Your task to perform on an android device: Clear all items from cart on walmart. Add logitech g933 to the cart on walmart Image 0: 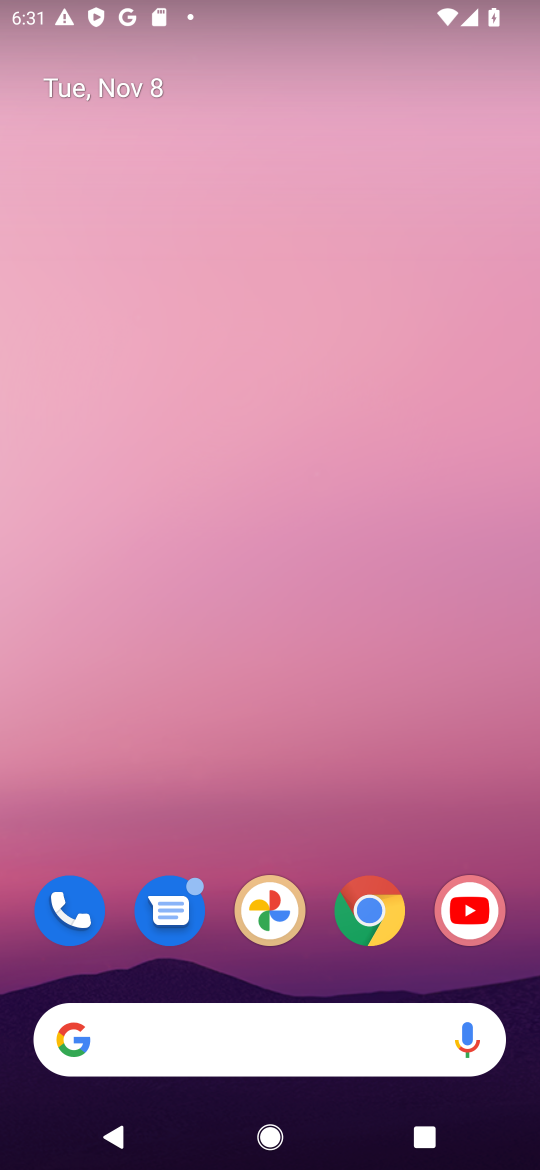
Step 0: click (382, 921)
Your task to perform on an android device: Clear all items from cart on walmart. Add logitech g933 to the cart on walmart Image 1: 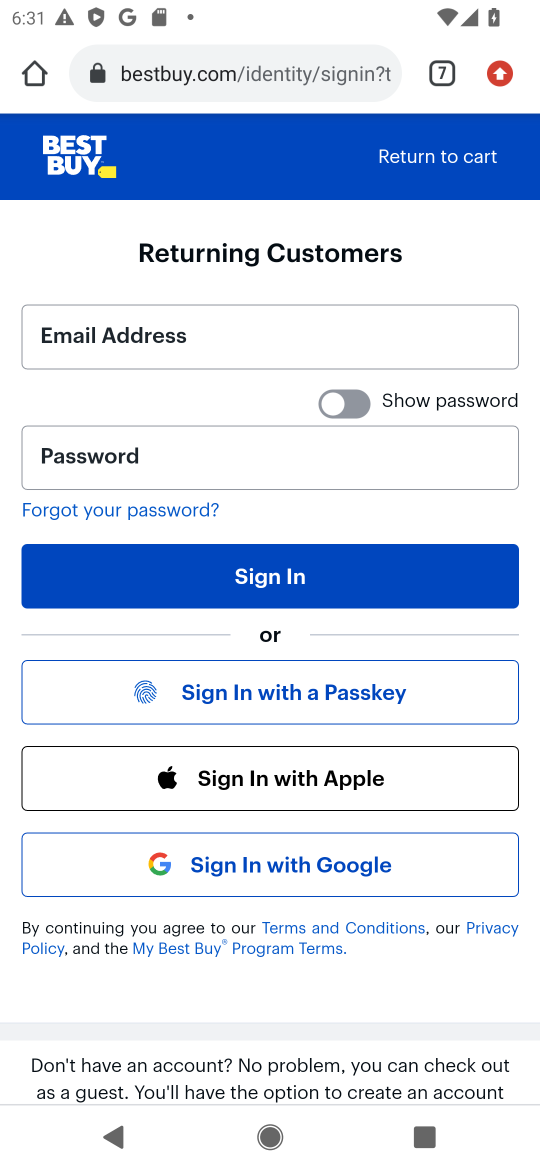
Step 1: click (436, 72)
Your task to perform on an android device: Clear all items from cart on walmart. Add logitech g933 to the cart on walmart Image 2: 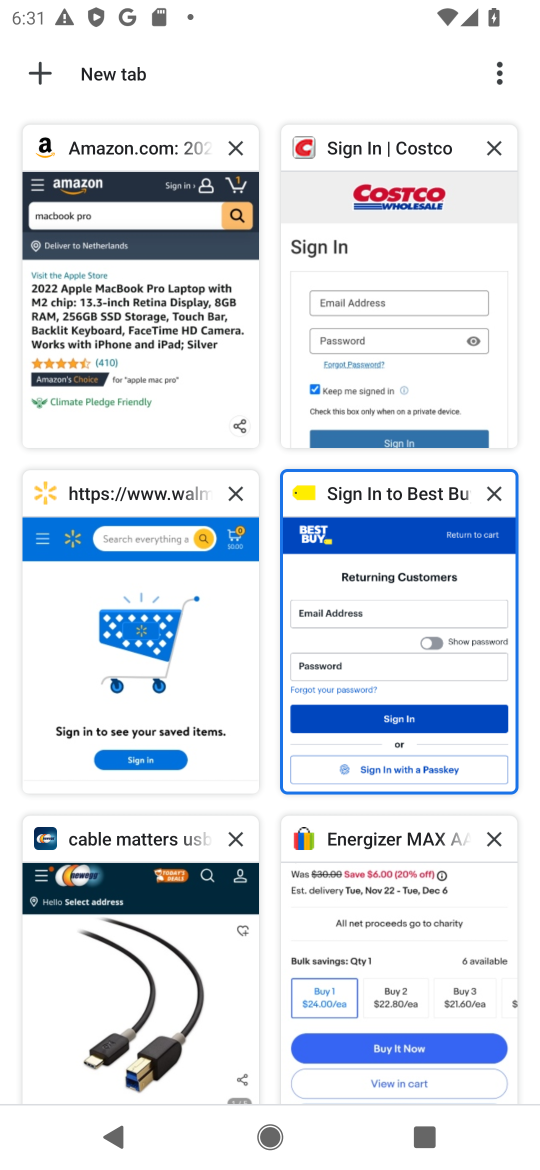
Step 2: click (148, 586)
Your task to perform on an android device: Clear all items from cart on walmart. Add logitech g933 to the cart on walmart Image 3: 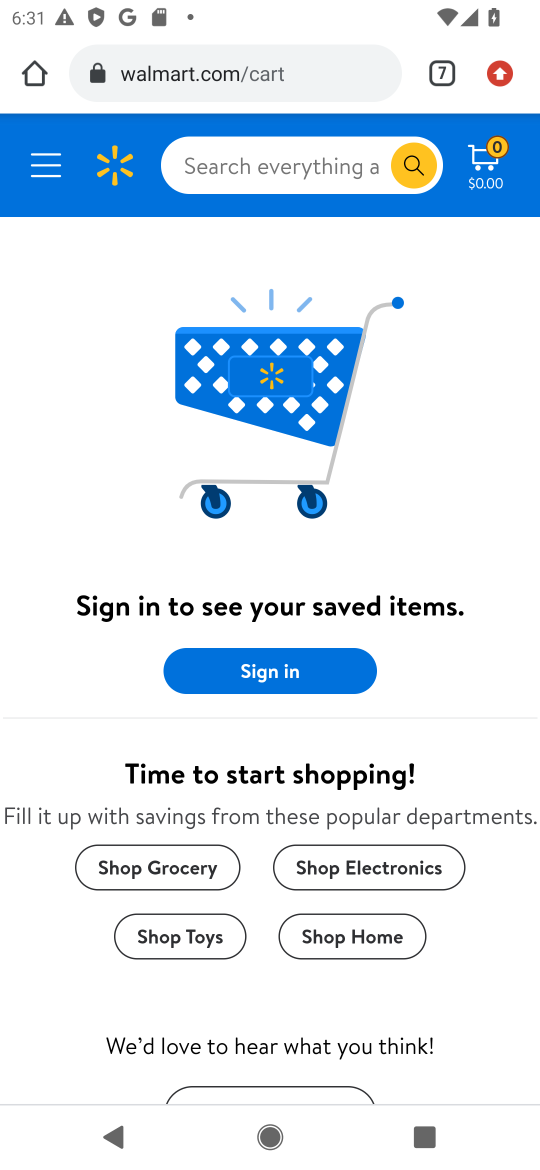
Step 3: click (297, 179)
Your task to perform on an android device: Clear all items from cart on walmart. Add logitech g933 to the cart on walmart Image 4: 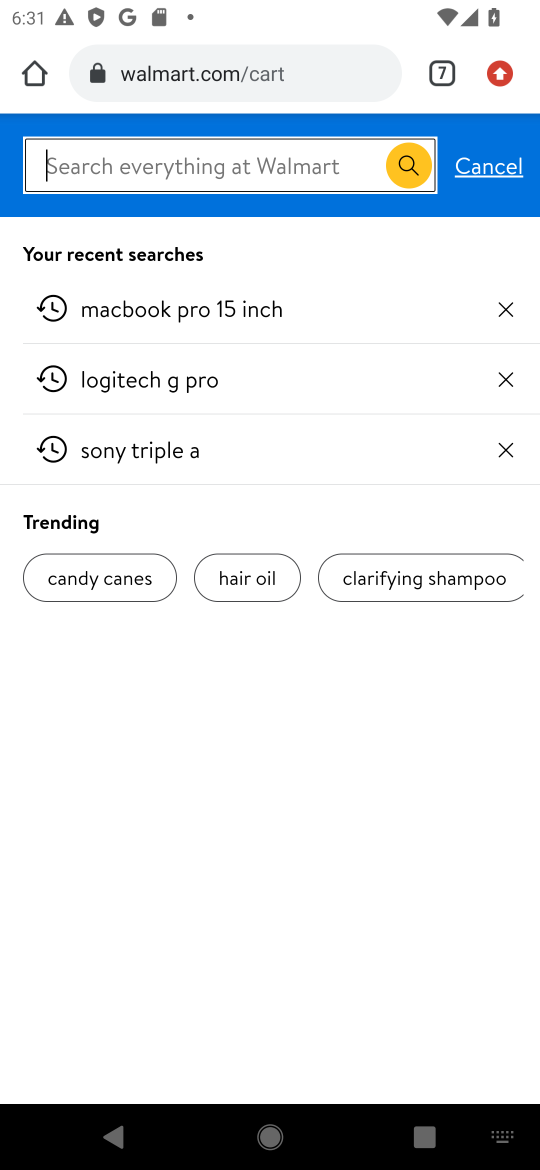
Step 4: type "logitech g933"
Your task to perform on an android device: Clear all items from cart on walmart. Add logitech g933 to the cart on walmart Image 5: 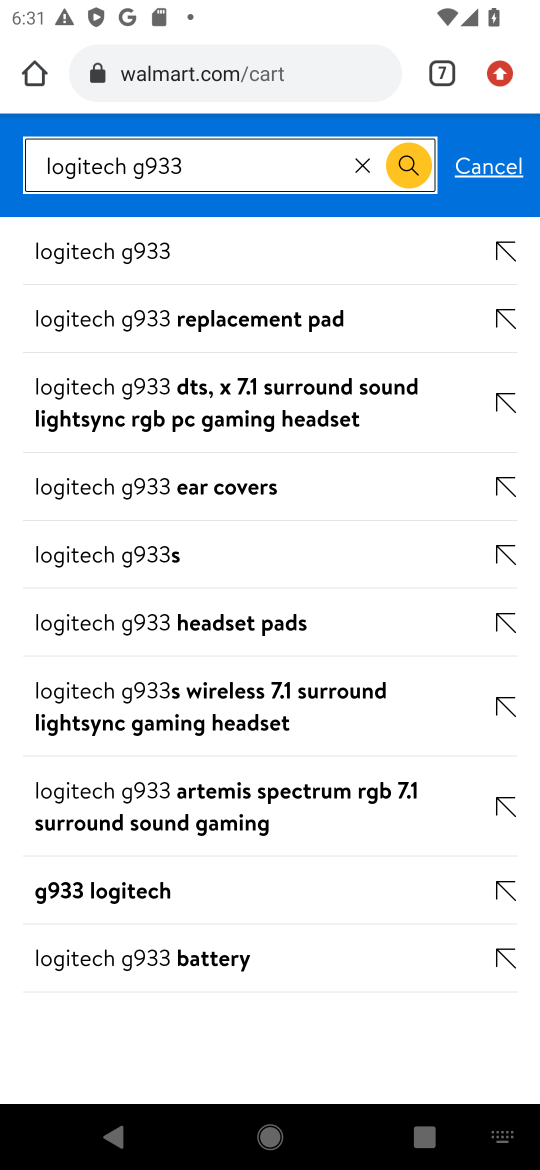
Step 5: click (130, 238)
Your task to perform on an android device: Clear all items from cart on walmart. Add logitech g933 to the cart on walmart Image 6: 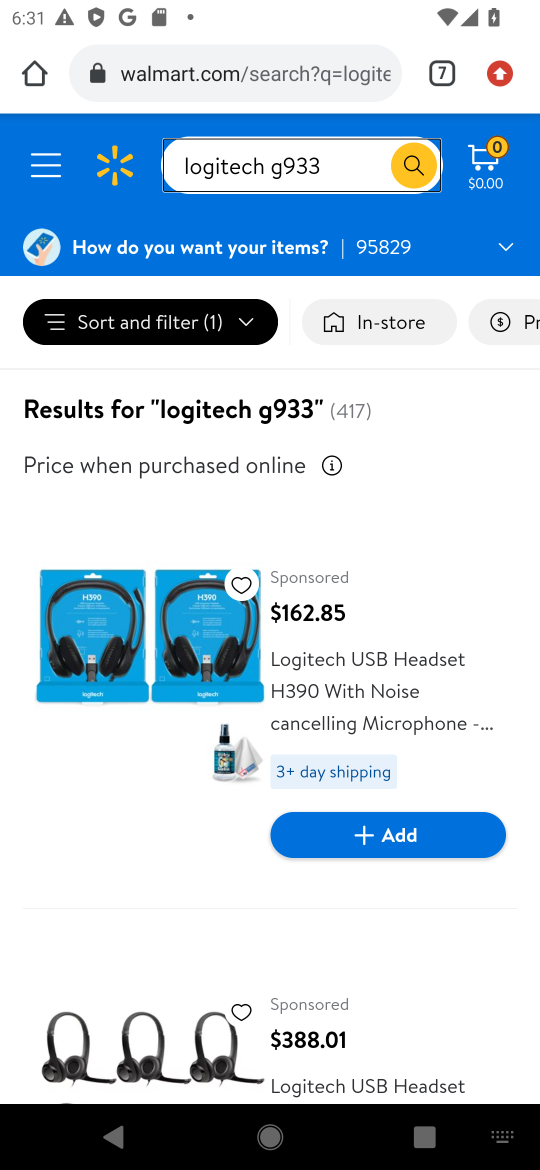
Step 6: drag from (161, 954) to (268, 385)
Your task to perform on an android device: Clear all items from cart on walmart. Add logitech g933 to the cart on walmart Image 7: 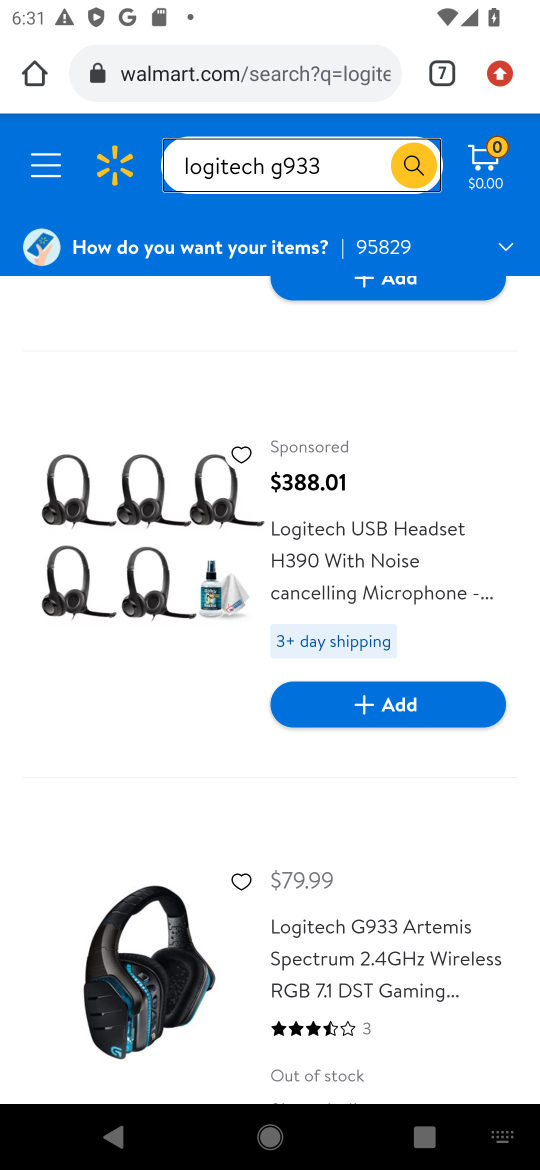
Step 7: drag from (202, 850) to (306, 329)
Your task to perform on an android device: Clear all items from cart on walmart. Add logitech g933 to the cart on walmart Image 8: 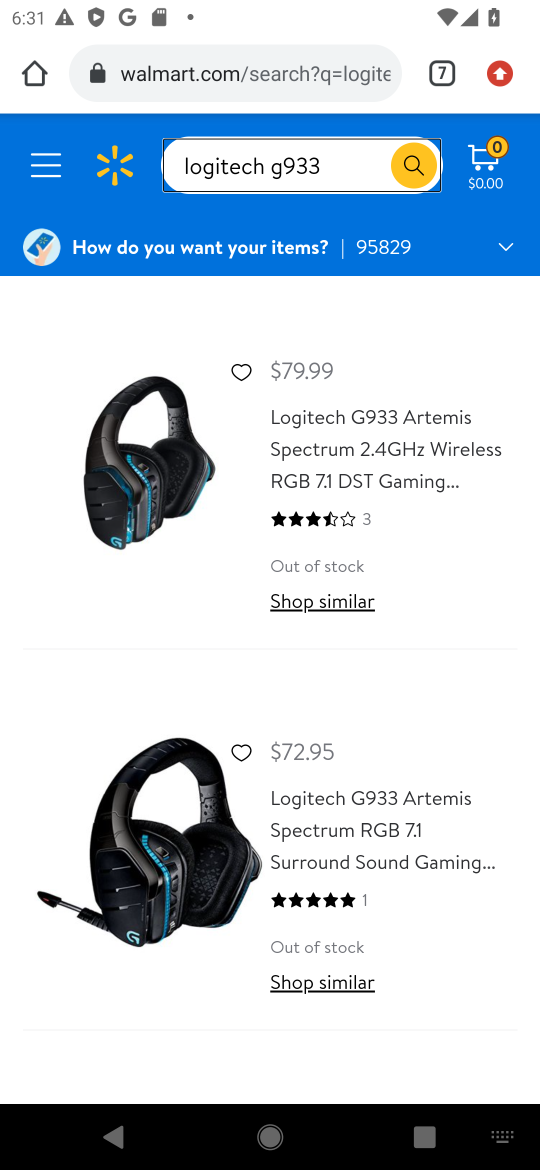
Step 8: click (351, 484)
Your task to perform on an android device: Clear all items from cart on walmart. Add logitech g933 to the cart on walmart Image 9: 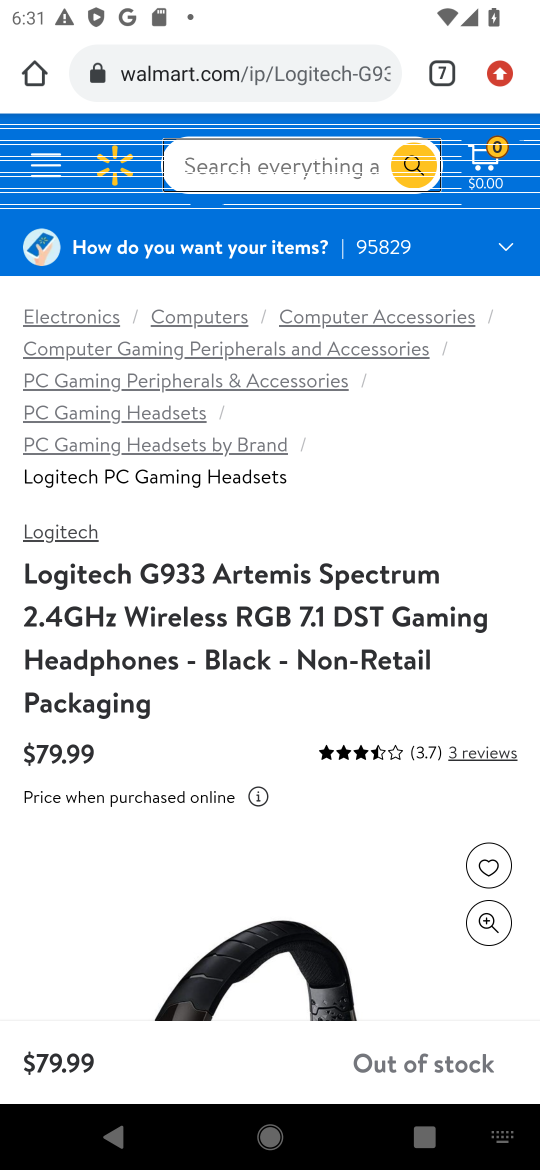
Step 9: task complete